Your task to perform on an android device: toggle priority inbox in the gmail app Image 0: 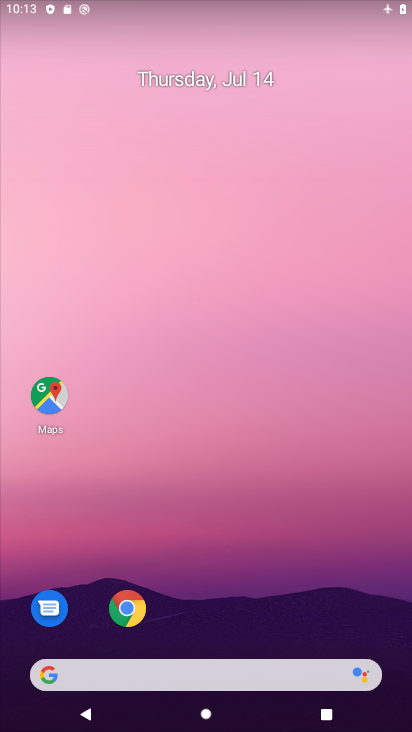
Step 0: drag from (216, 629) to (199, 31)
Your task to perform on an android device: toggle priority inbox in the gmail app Image 1: 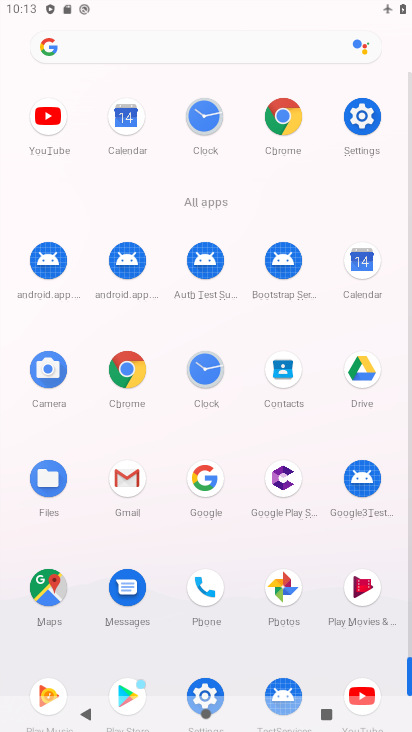
Step 1: click (129, 505)
Your task to perform on an android device: toggle priority inbox in the gmail app Image 2: 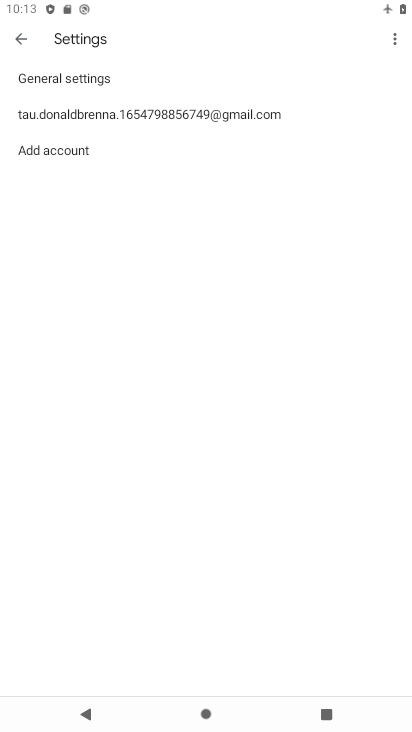
Step 2: click (117, 118)
Your task to perform on an android device: toggle priority inbox in the gmail app Image 3: 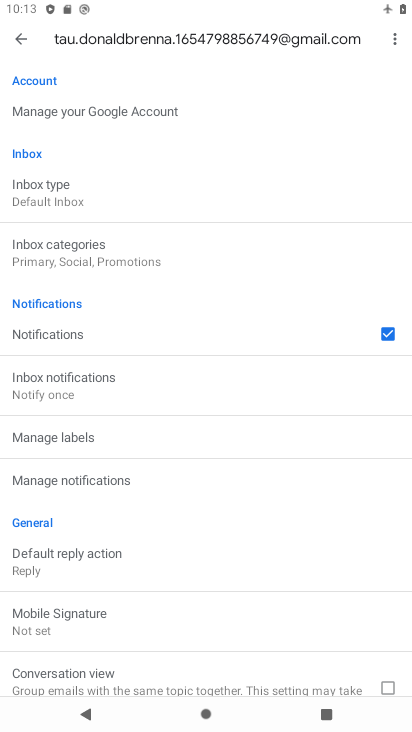
Step 3: click (67, 211)
Your task to perform on an android device: toggle priority inbox in the gmail app Image 4: 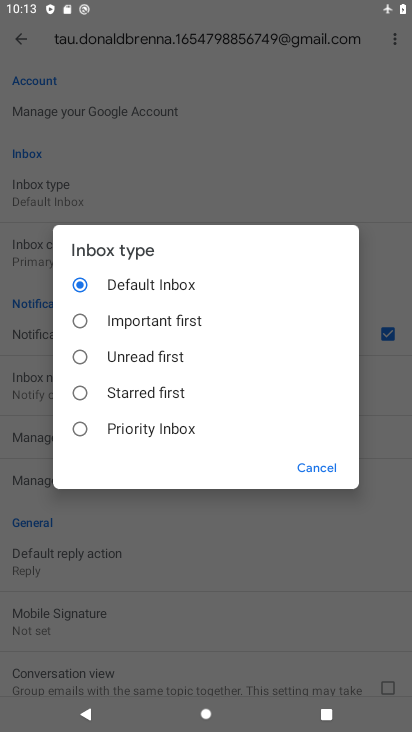
Step 4: click (105, 393)
Your task to perform on an android device: toggle priority inbox in the gmail app Image 5: 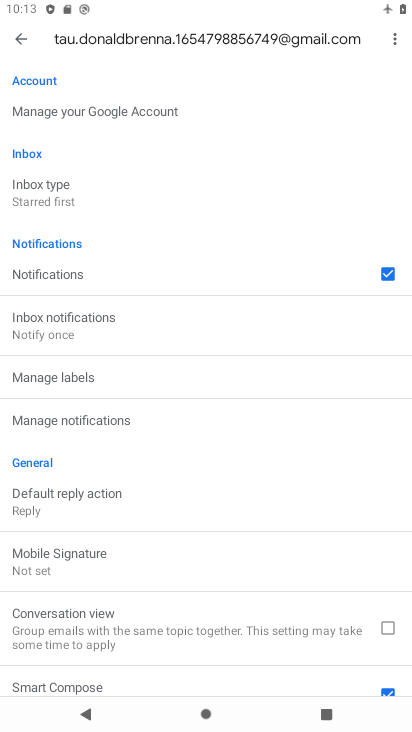
Step 5: click (46, 206)
Your task to perform on an android device: toggle priority inbox in the gmail app Image 6: 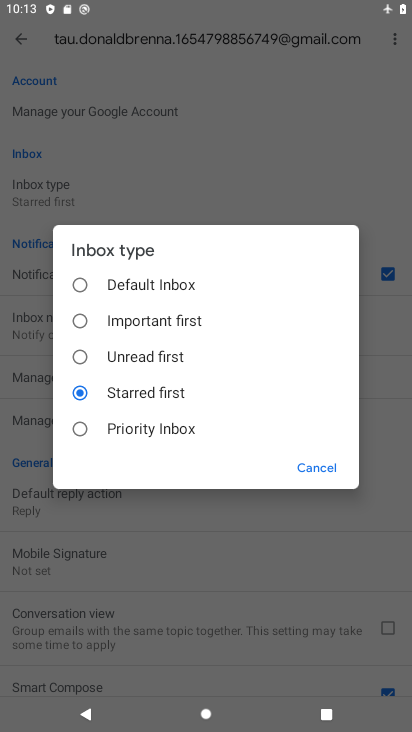
Step 6: click (93, 430)
Your task to perform on an android device: toggle priority inbox in the gmail app Image 7: 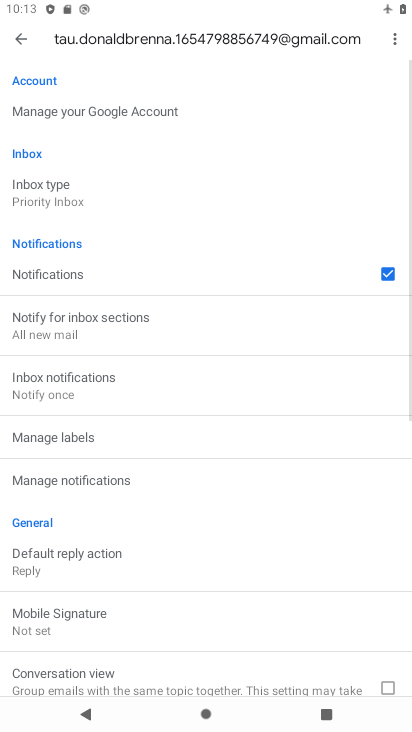
Step 7: task complete